Your task to perform on an android device: Go to sound settings Image 0: 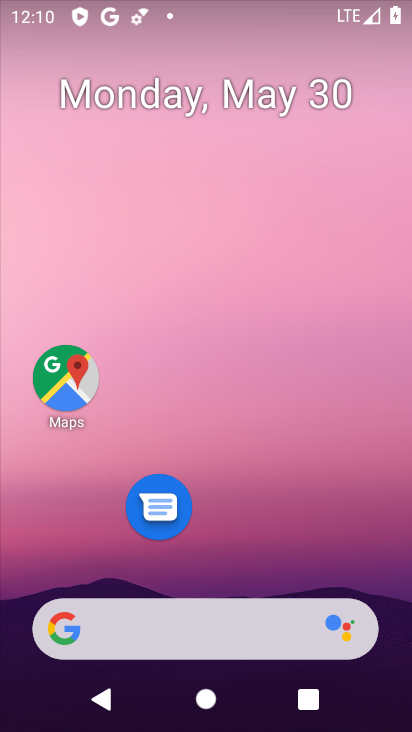
Step 0: drag from (248, 537) to (266, 0)
Your task to perform on an android device: Go to sound settings Image 1: 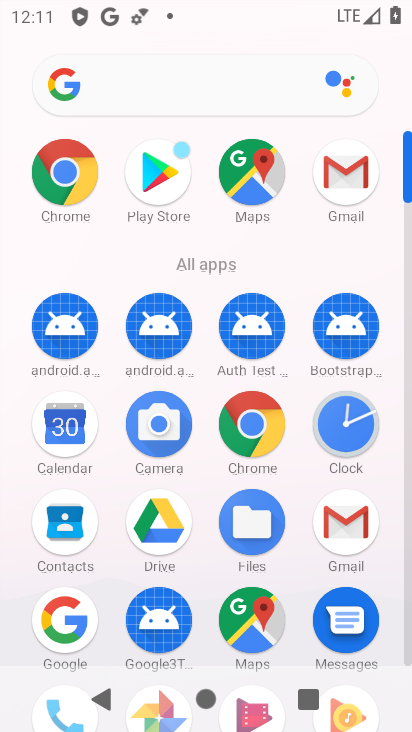
Step 1: drag from (268, 309) to (295, 41)
Your task to perform on an android device: Go to sound settings Image 2: 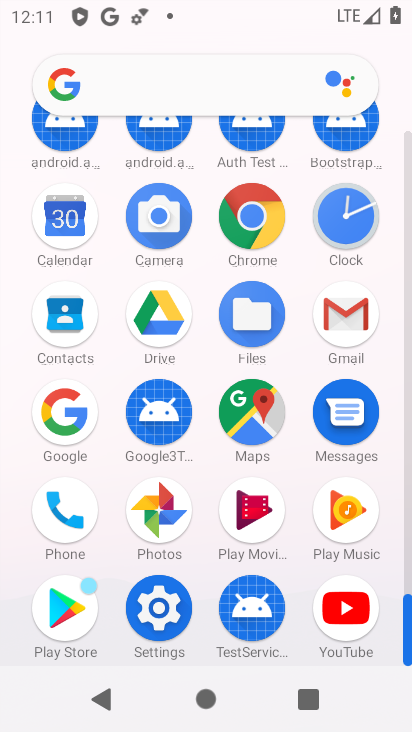
Step 2: click (160, 604)
Your task to perform on an android device: Go to sound settings Image 3: 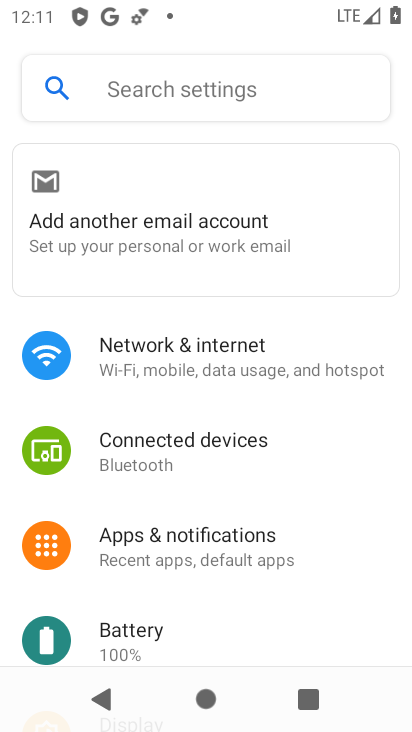
Step 3: drag from (259, 557) to (281, 53)
Your task to perform on an android device: Go to sound settings Image 4: 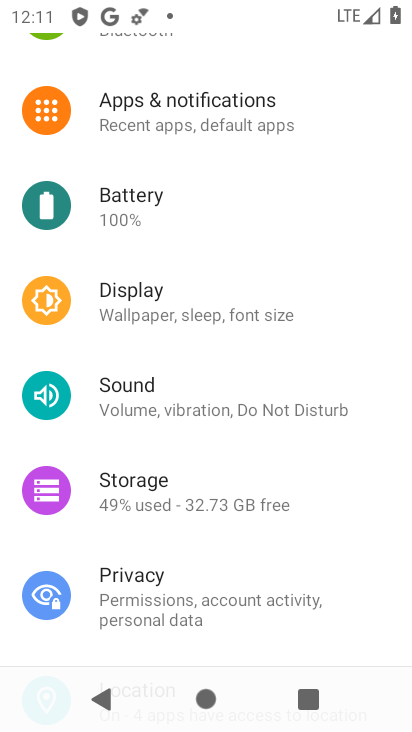
Step 4: click (202, 400)
Your task to perform on an android device: Go to sound settings Image 5: 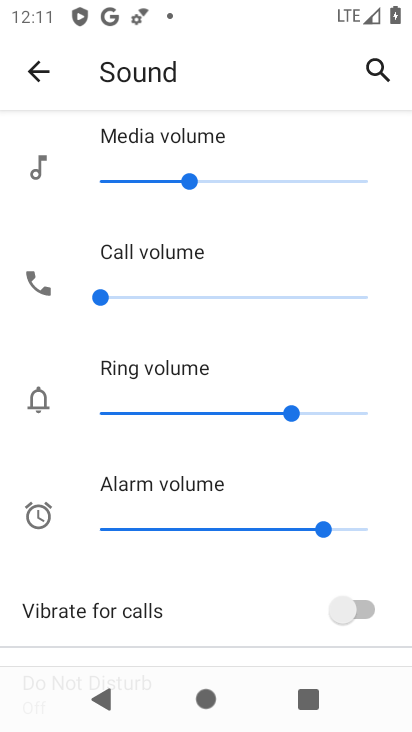
Step 5: task complete